Your task to perform on an android device: turn on bluetooth scan Image 0: 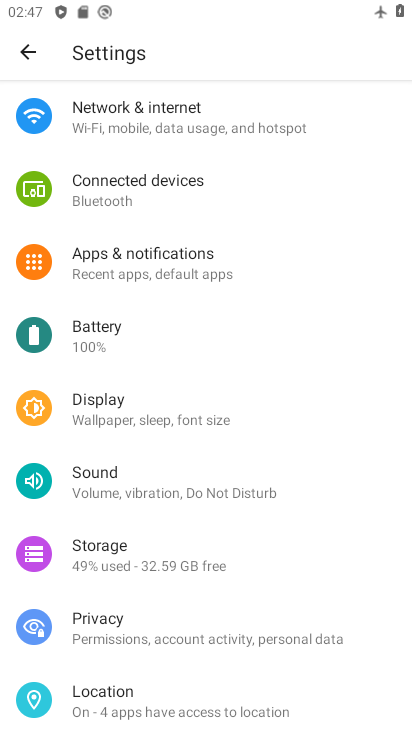
Step 0: drag from (223, 234) to (230, 638)
Your task to perform on an android device: turn on bluetooth scan Image 1: 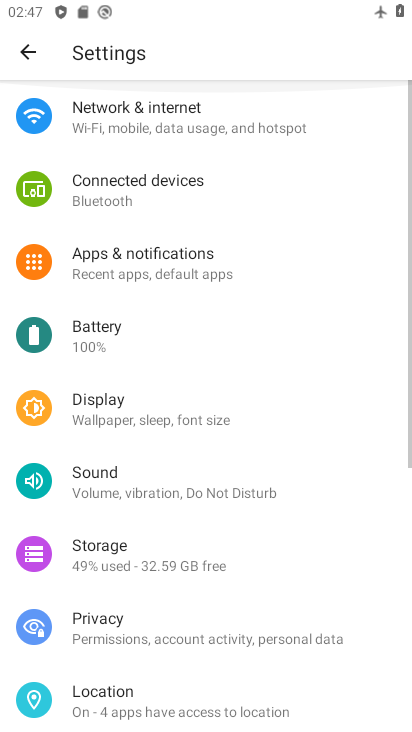
Step 1: drag from (183, 193) to (217, 675)
Your task to perform on an android device: turn on bluetooth scan Image 2: 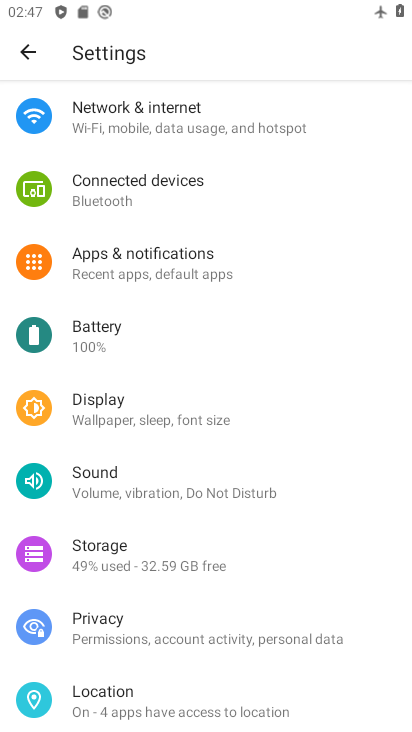
Step 2: drag from (300, 502) to (262, 718)
Your task to perform on an android device: turn on bluetooth scan Image 3: 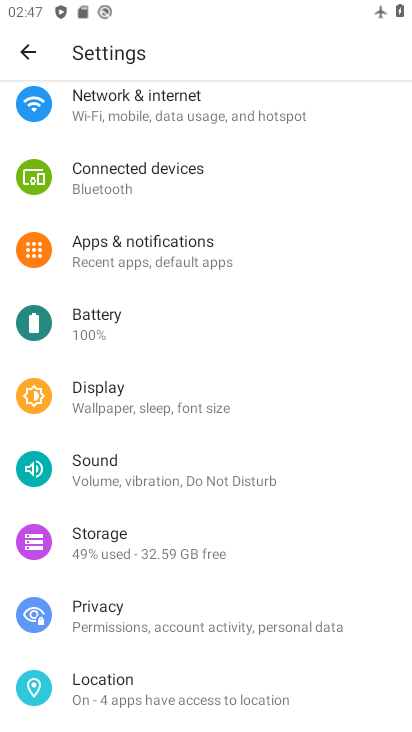
Step 3: click (29, 42)
Your task to perform on an android device: turn on bluetooth scan Image 4: 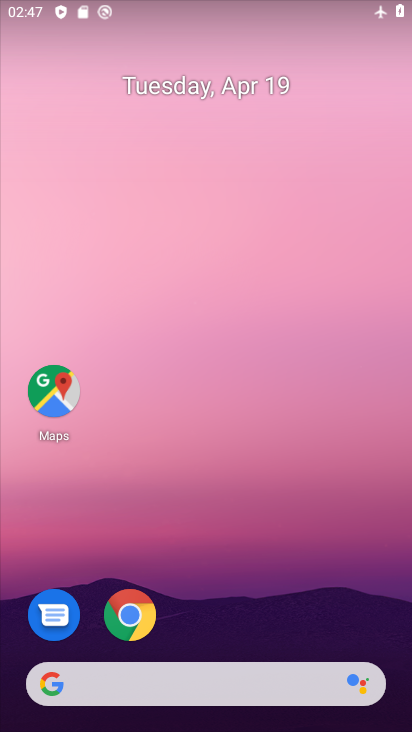
Step 4: drag from (262, 492) to (313, 146)
Your task to perform on an android device: turn on bluetooth scan Image 5: 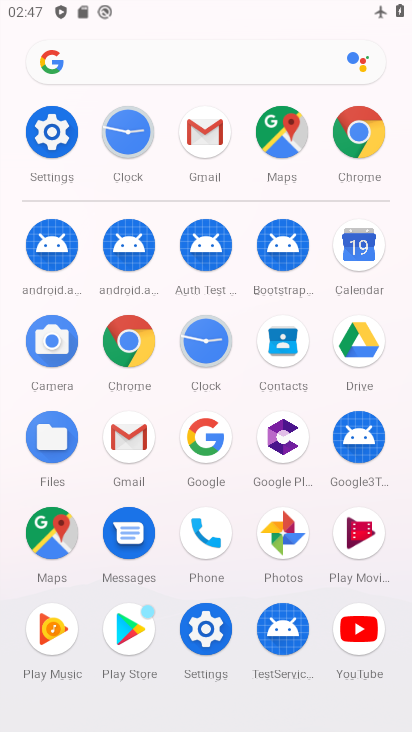
Step 5: click (55, 120)
Your task to perform on an android device: turn on bluetooth scan Image 6: 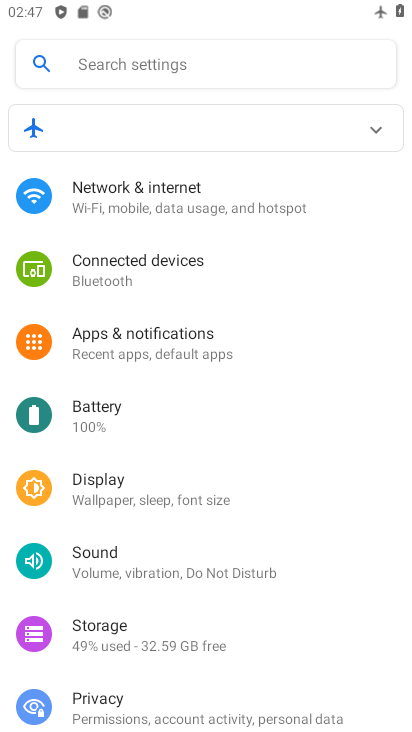
Step 6: click (121, 52)
Your task to perform on an android device: turn on bluetooth scan Image 7: 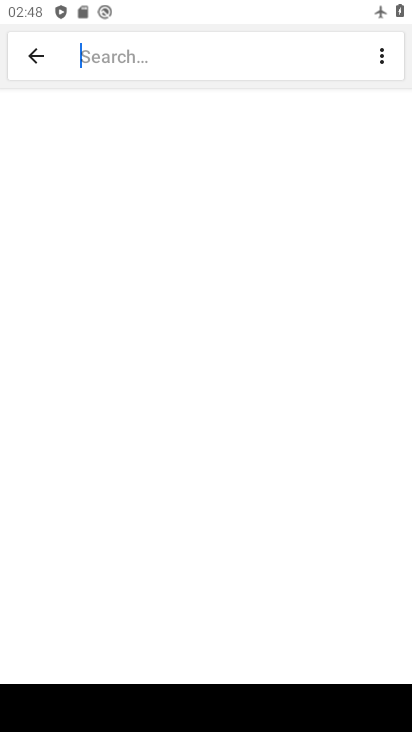
Step 7: type "bluetooth scan"
Your task to perform on an android device: turn on bluetooth scan Image 8: 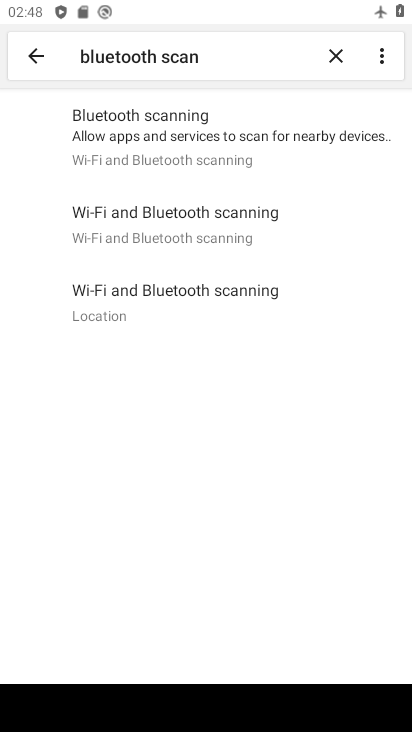
Step 8: click (267, 150)
Your task to perform on an android device: turn on bluetooth scan Image 9: 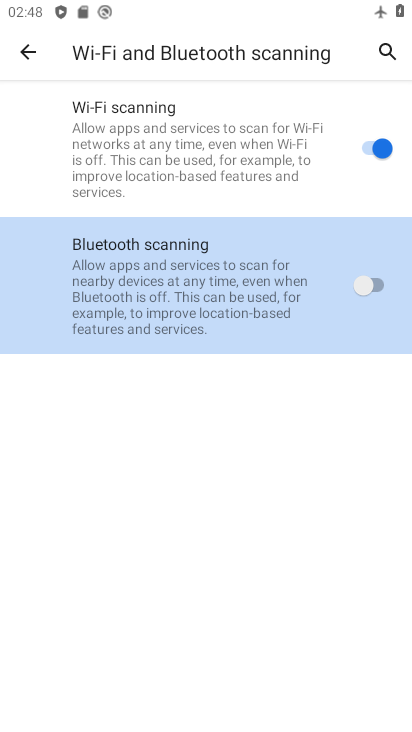
Step 9: click (373, 281)
Your task to perform on an android device: turn on bluetooth scan Image 10: 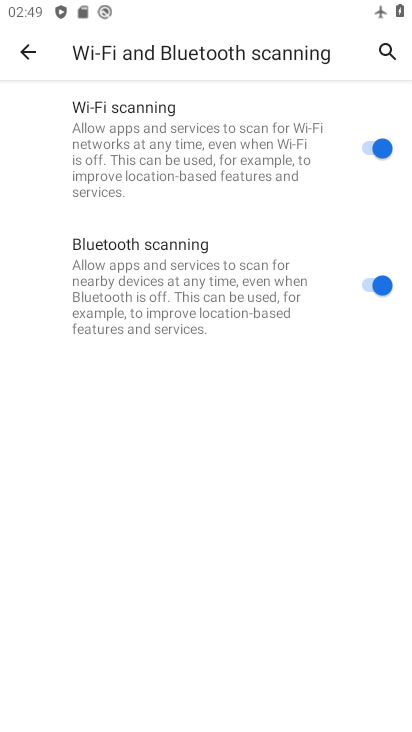
Step 10: task complete